Your task to perform on an android device: toggle javascript in the chrome app Image 0: 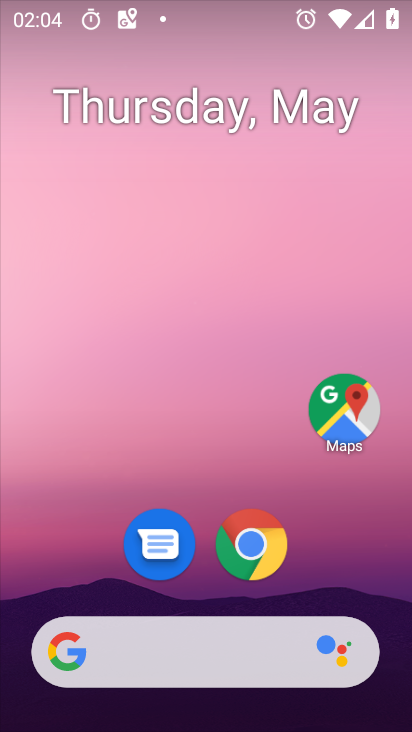
Step 0: drag from (352, 580) to (367, 188)
Your task to perform on an android device: toggle javascript in the chrome app Image 1: 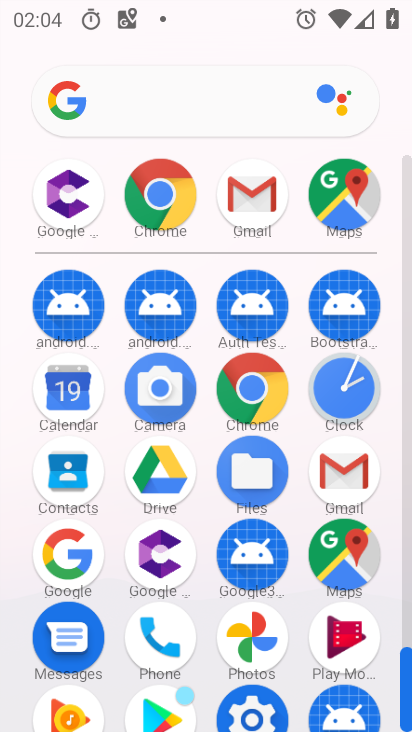
Step 1: click (259, 403)
Your task to perform on an android device: toggle javascript in the chrome app Image 2: 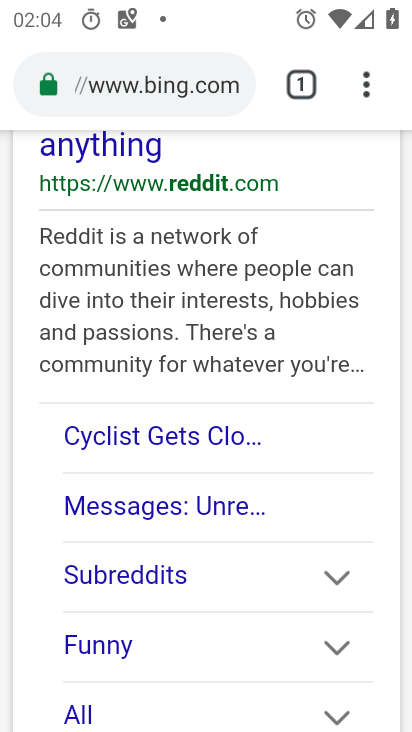
Step 2: click (362, 88)
Your task to perform on an android device: toggle javascript in the chrome app Image 3: 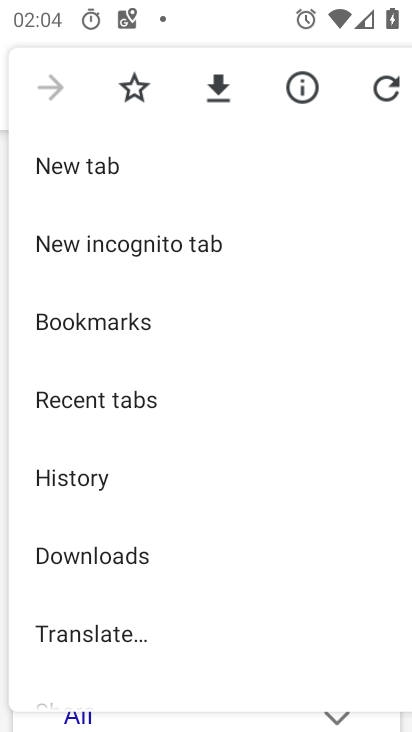
Step 3: drag from (316, 590) to (322, 368)
Your task to perform on an android device: toggle javascript in the chrome app Image 4: 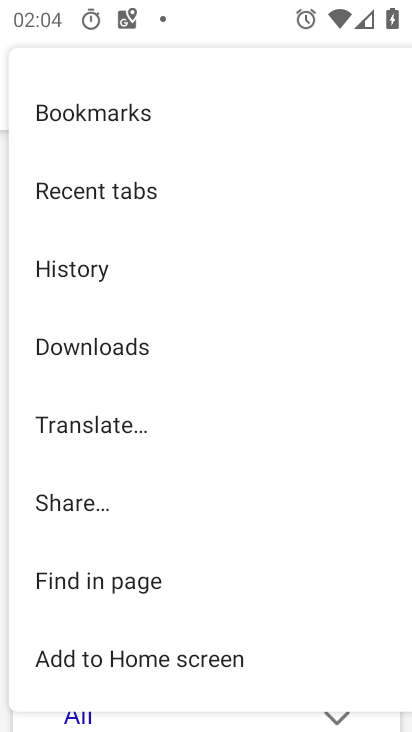
Step 4: drag from (310, 576) to (314, 418)
Your task to perform on an android device: toggle javascript in the chrome app Image 5: 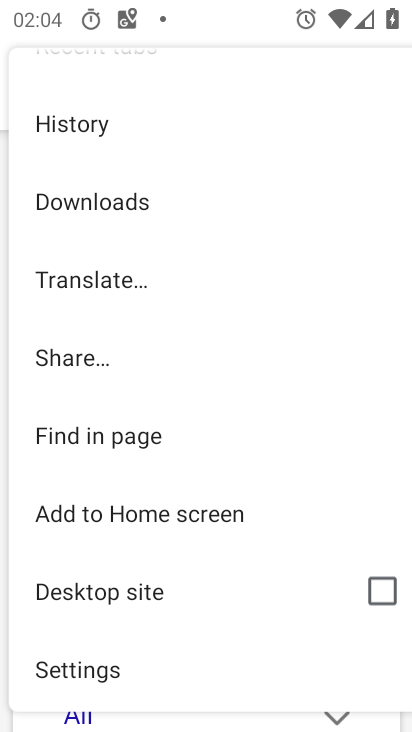
Step 5: drag from (272, 654) to (289, 433)
Your task to perform on an android device: toggle javascript in the chrome app Image 6: 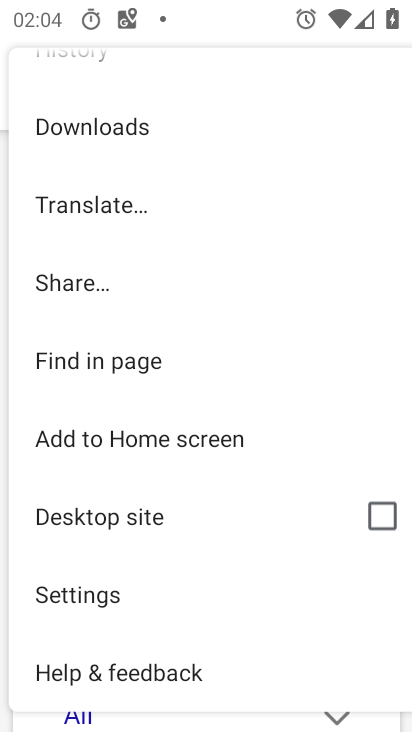
Step 6: drag from (288, 615) to (296, 434)
Your task to perform on an android device: toggle javascript in the chrome app Image 7: 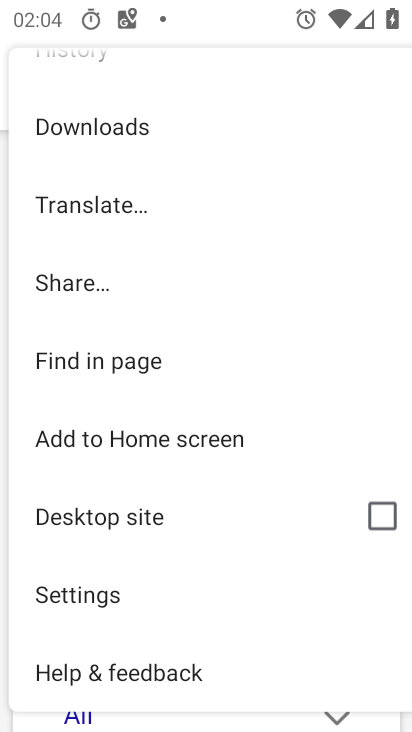
Step 7: click (108, 601)
Your task to perform on an android device: toggle javascript in the chrome app Image 8: 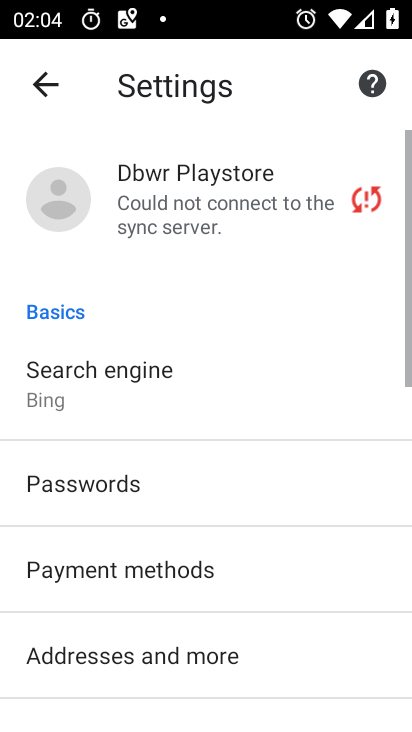
Step 8: drag from (268, 598) to (292, 420)
Your task to perform on an android device: toggle javascript in the chrome app Image 9: 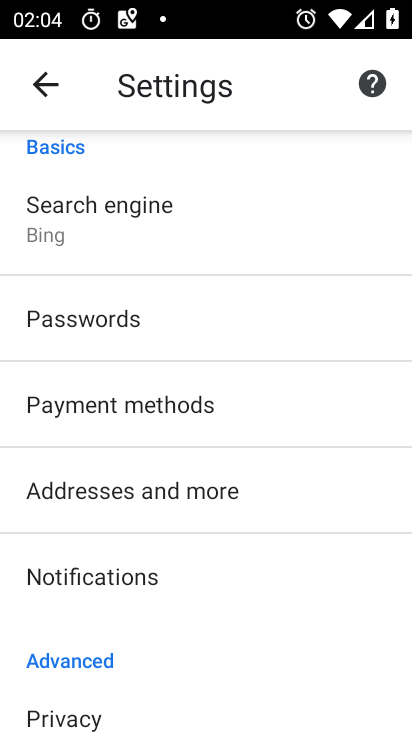
Step 9: drag from (291, 651) to (312, 463)
Your task to perform on an android device: toggle javascript in the chrome app Image 10: 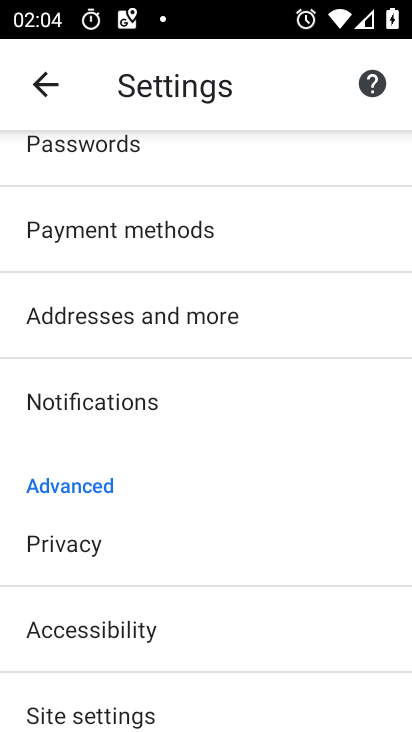
Step 10: drag from (296, 668) to (317, 446)
Your task to perform on an android device: toggle javascript in the chrome app Image 11: 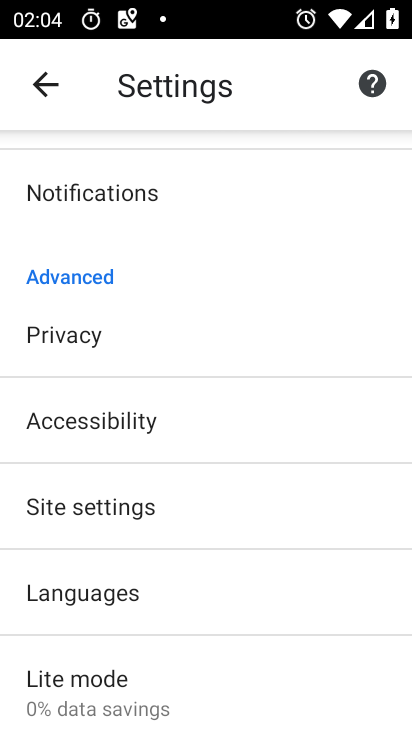
Step 11: drag from (304, 609) to (312, 429)
Your task to perform on an android device: toggle javascript in the chrome app Image 12: 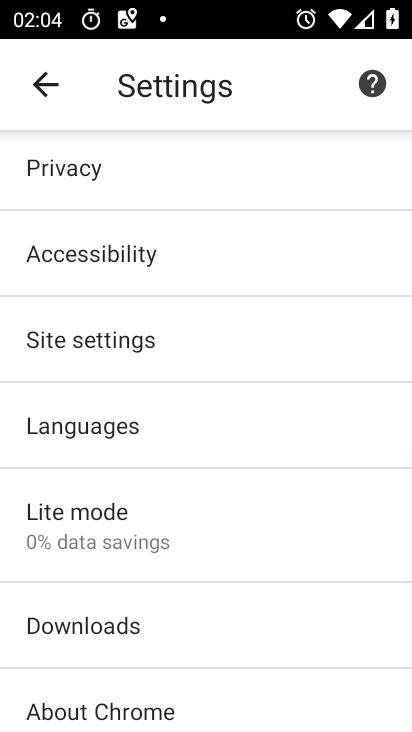
Step 12: drag from (304, 619) to (302, 430)
Your task to perform on an android device: toggle javascript in the chrome app Image 13: 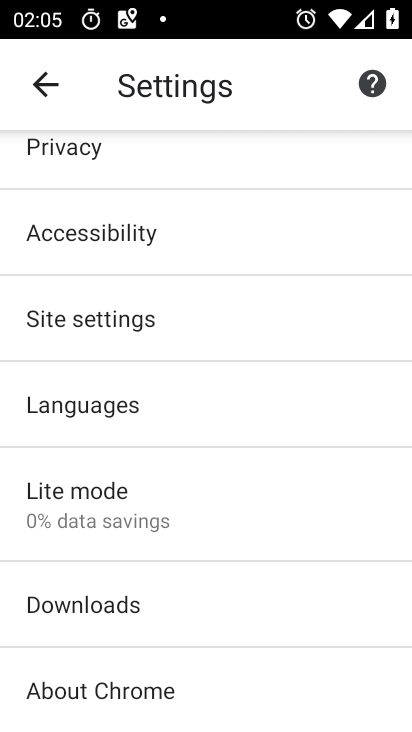
Step 13: drag from (304, 644) to (304, 437)
Your task to perform on an android device: toggle javascript in the chrome app Image 14: 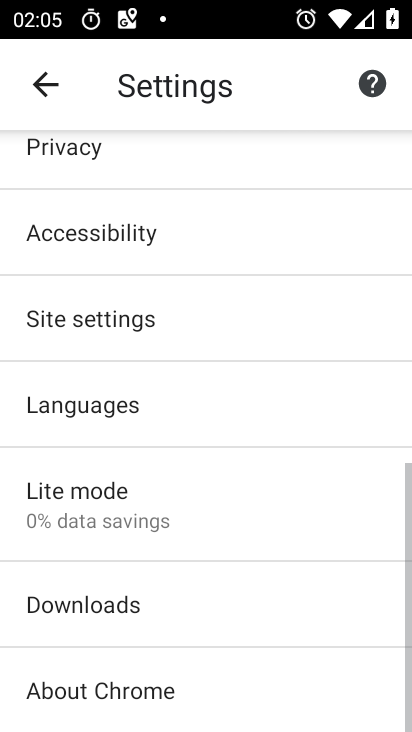
Step 14: drag from (284, 311) to (282, 419)
Your task to perform on an android device: toggle javascript in the chrome app Image 15: 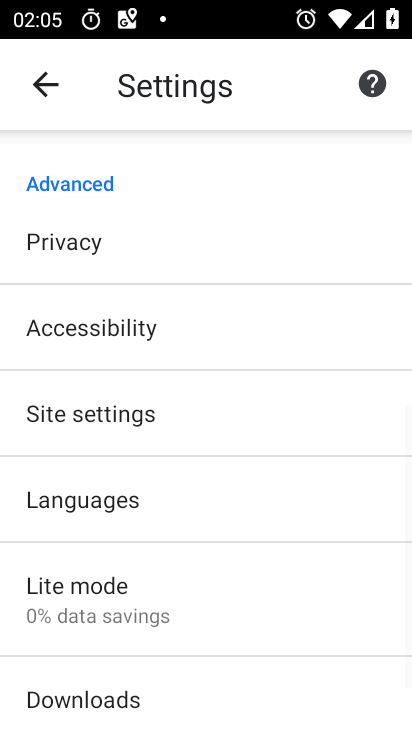
Step 15: click (282, 421)
Your task to perform on an android device: toggle javascript in the chrome app Image 16: 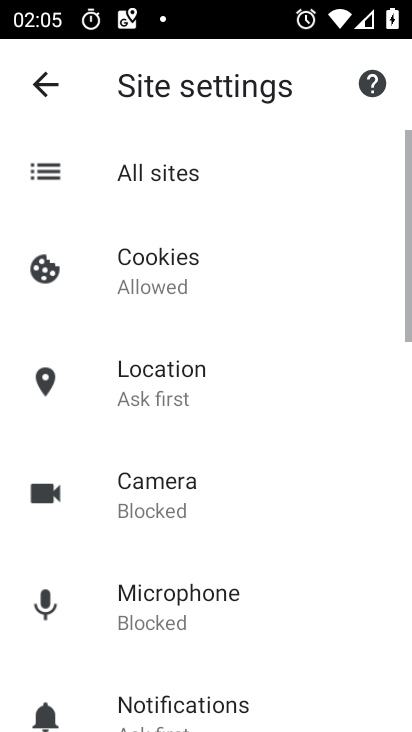
Step 16: drag from (303, 586) to (313, 397)
Your task to perform on an android device: toggle javascript in the chrome app Image 17: 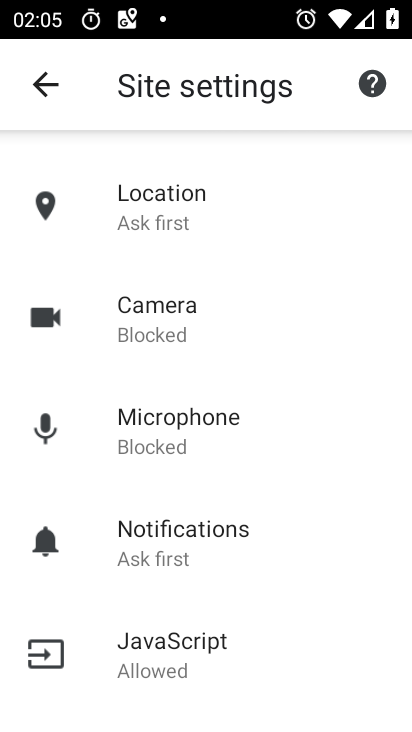
Step 17: drag from (329, 616) to (336, 413)
Your task to perform on an android device: toggle javascript in the chrome app Image 18: 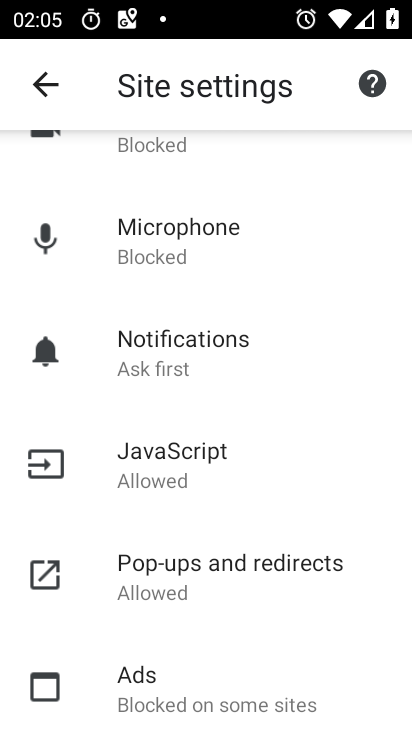
Step 18: drag from (305, 641) to (319, 459)
Your task to perform on an android device: toggle javascript in the chrome app Image 19: 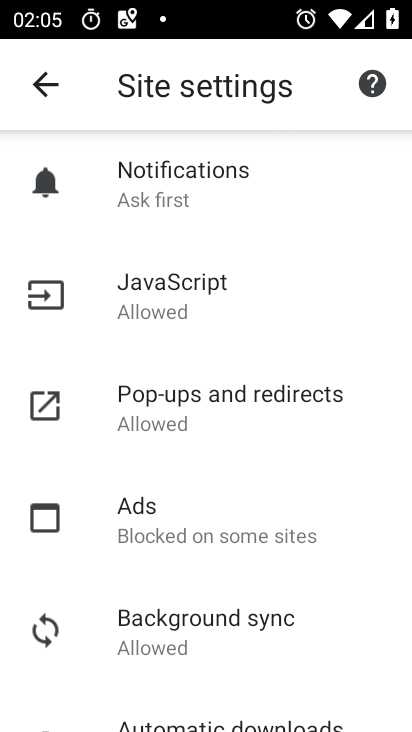
Step 19: drag from (319, 664) to (335, 509)
Your task to perform on an android device: toggle javascript in the chrome app Image 20: 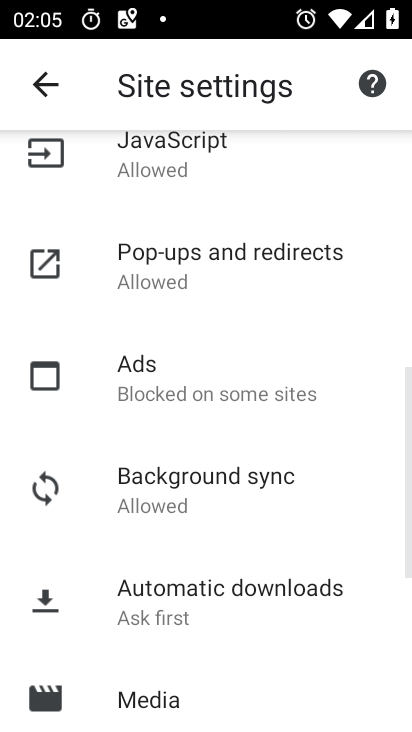
Step 20: drag from (334, 678) to (344, 502)
Your task to perform on an android device: toggle javascript in the chrome app Image 21: 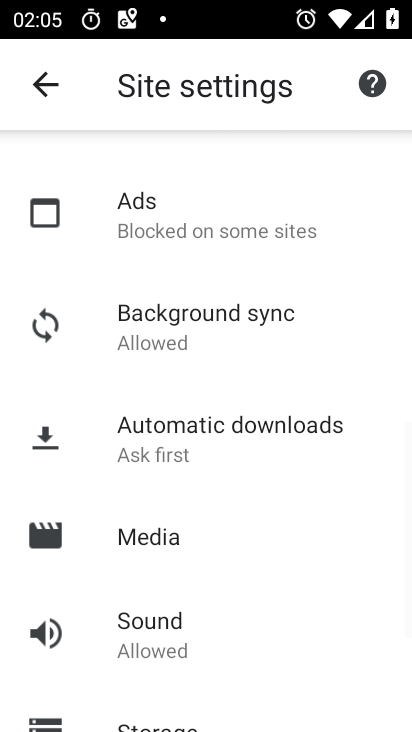
Step 21: drag from (327, 650) to (363, 464)
Your task to perform on an android device: toggle javascript in the chrome app Image 22: 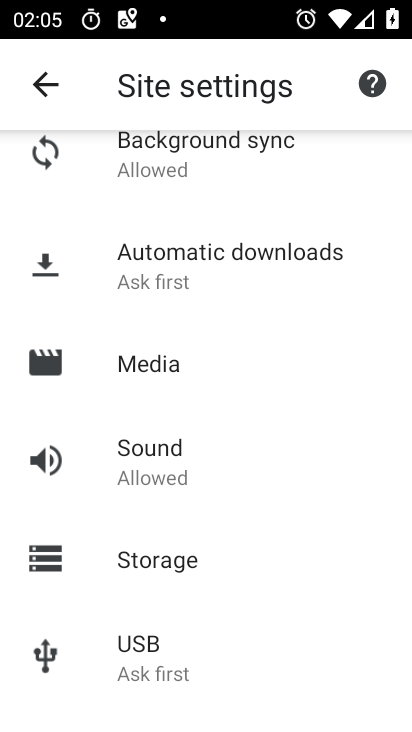
Step 22: drag from (326, 346) to (326, 449)
Your task to perform on an android device: toggle javascript in the chrome app Image 23: 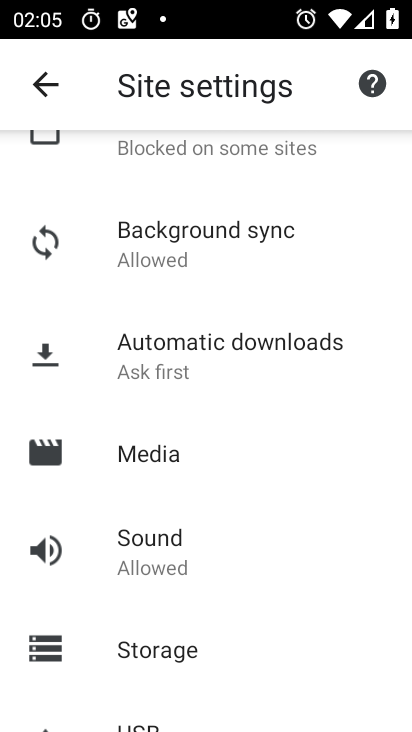
Step 23: drag from (361, 297) to (369, 428)
Your task to perform on an android device: toggle javascript in the chrome app Image 24: 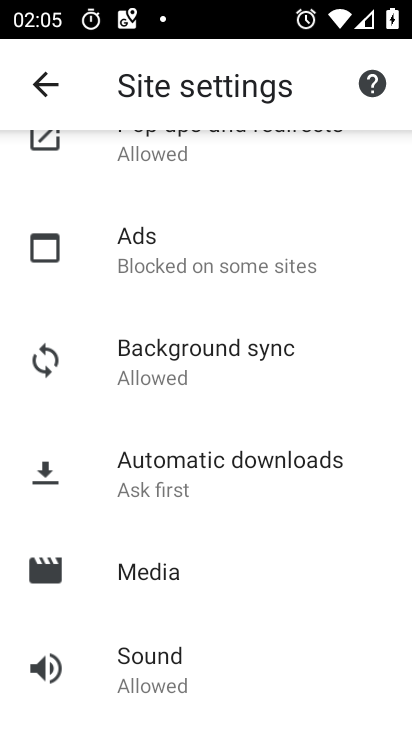
Step 24: drag from (358, 263) to (352, 380)
Your task to perform on an android device: toggle javascript in the chrome app Image 25: 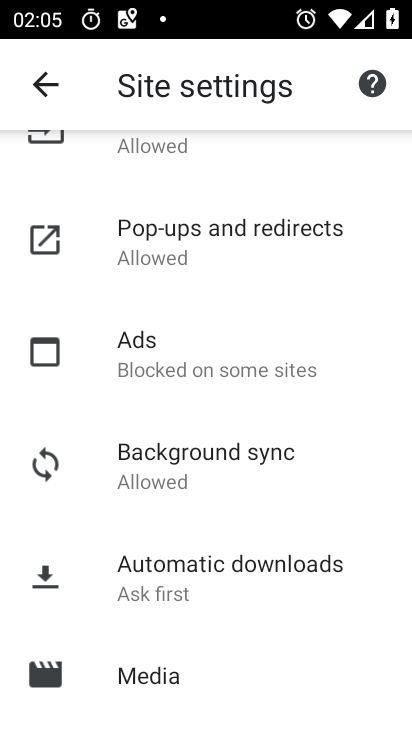
Step 25: drag from (341, 297) to (341, 399)
Your task to perform on an android device: toggle javascript in the chrome app Image 26: 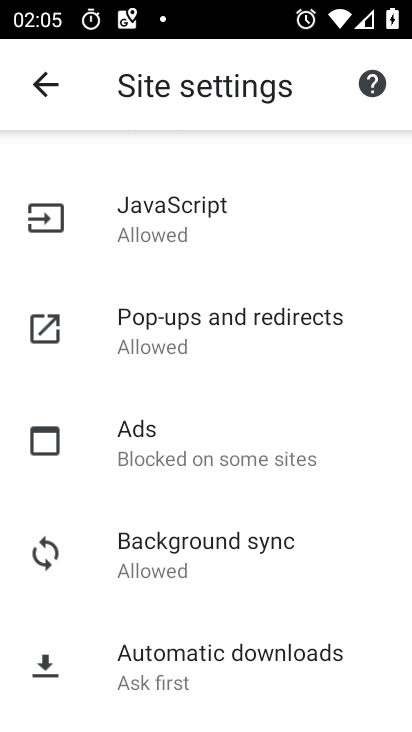
Step 26: click (242, 245)
Your task to perform on an android device: toggle javascript in the chrome app Image 27: 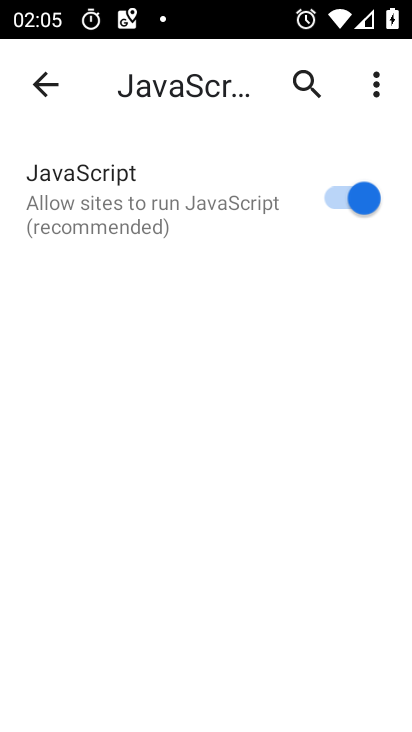
Step 27: click (345, 201)
Your task to perform on an android device: toggle javascript in the chrome app Image 28: 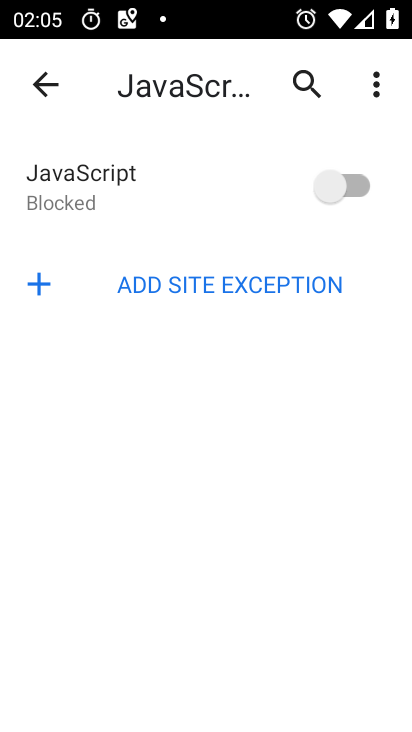
Step 28: task complete